Your task to perform on an android device: Open eBay Image 0: 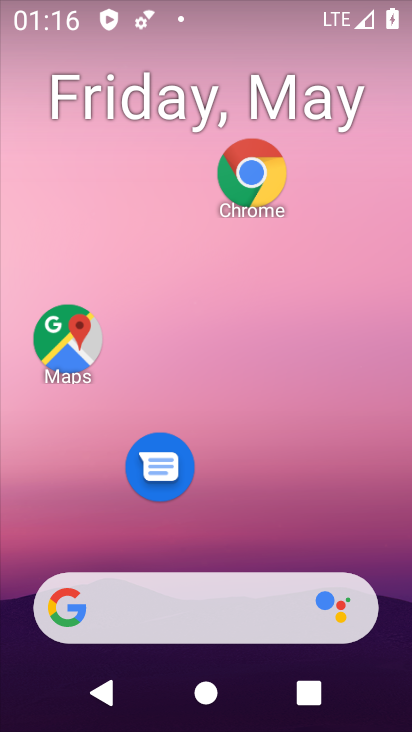
Step 0: drag from (263, 648) to (269, 100)
Your task to perform on an android device: Open eBay Image 1: 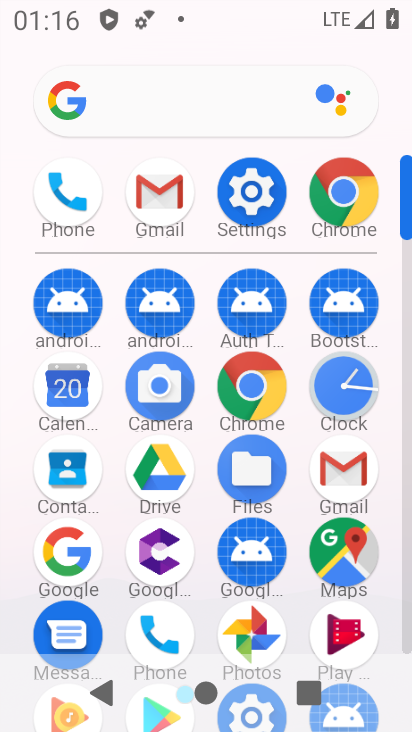
Step 1: click (341, 194)
Your task to perform on an android device: Open eBay Image 2: 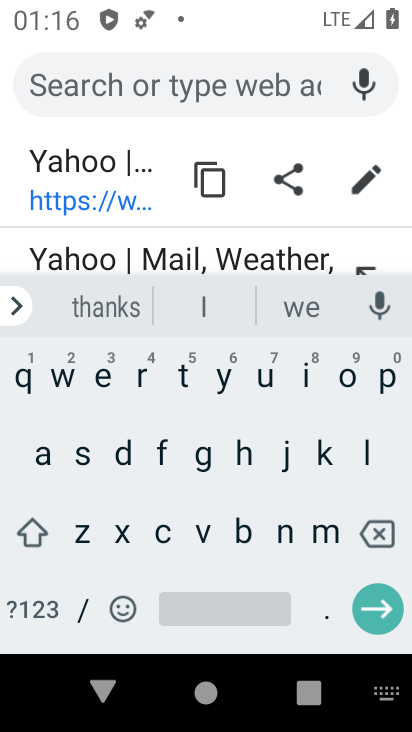
Step 2: click (106, 383)
Your task to perform on an android device: Open eBay Image 3: 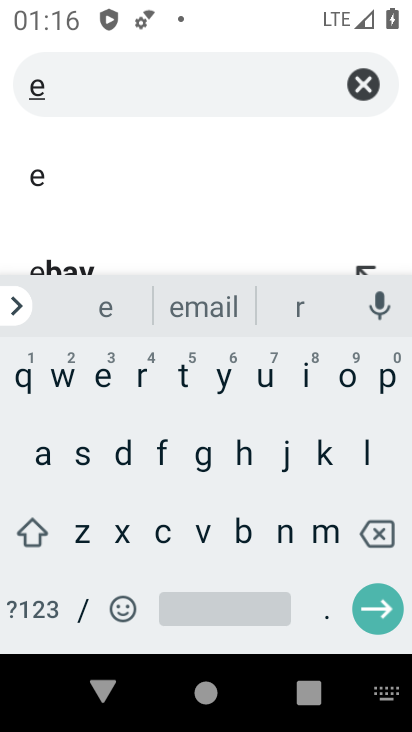
Step 3: click (70, 262)
Your task to perform on an android device: Open eBay Image 4: 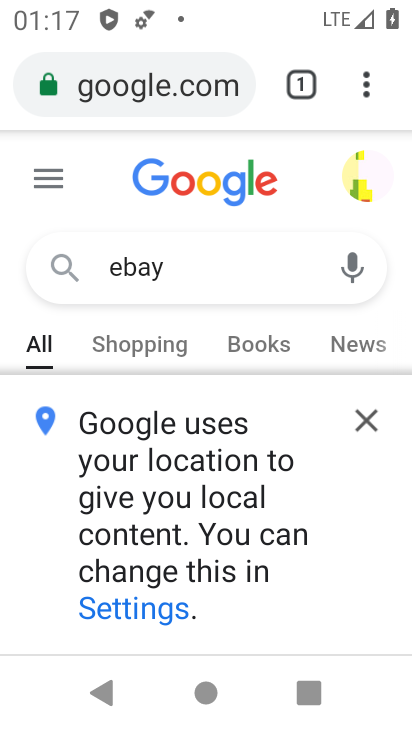
Step 4: click (368, 417)
Your task to perform on an android device: Open eBay Image 5: 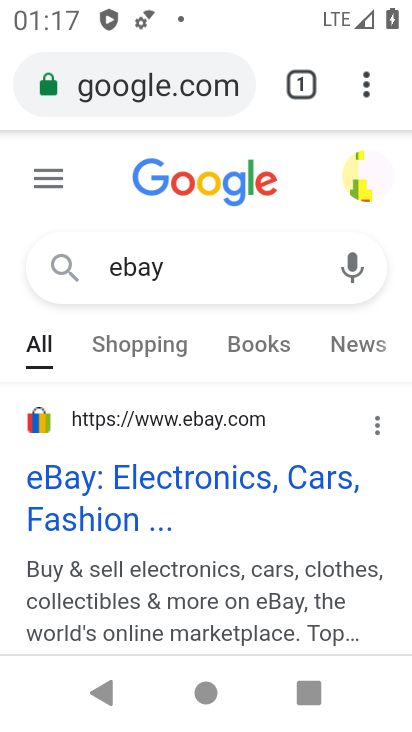
Step 5: click (156, 492)
Your task to perform on an android device: Open eBay Image 6: 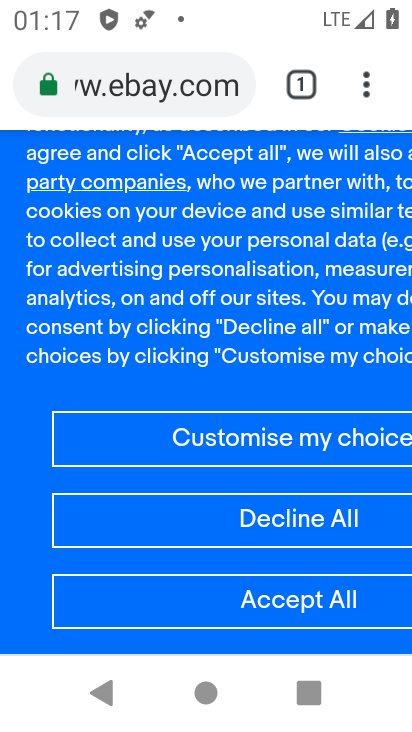
Step 6: click (221, 528)
Your task to perform on an android device: Open eBay Image 7: 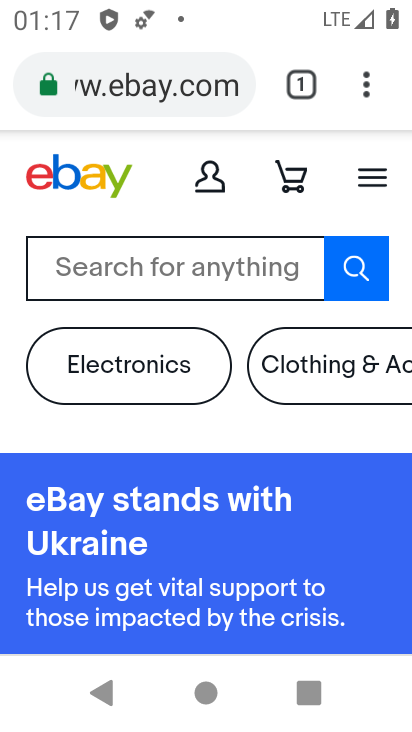
Step 7: task complete